Your task to perform on an android device: delete location history Image 0: 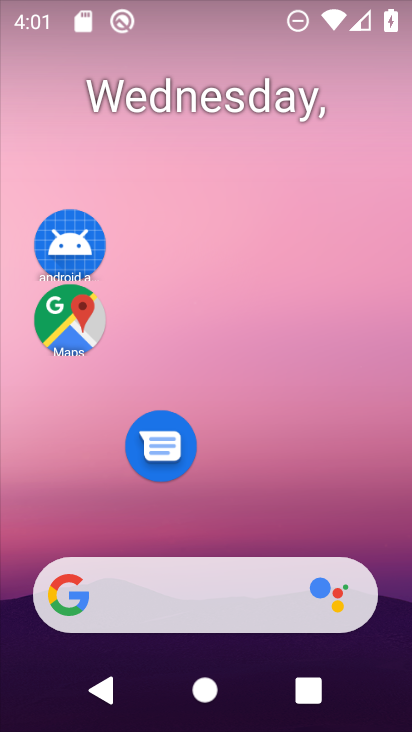
Step 0: drag from (270, 501) to (250, 2)
Your task to perform on an android device: delete location history Image 1: 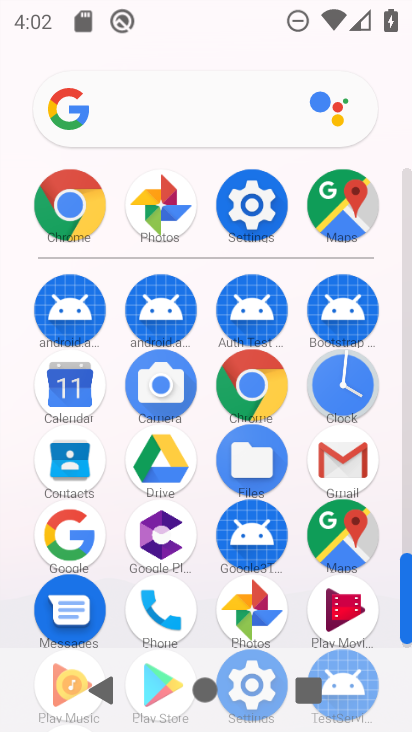
Step 1: click (245, 237)
Your task to perform on an android device: delete location history Image 2: 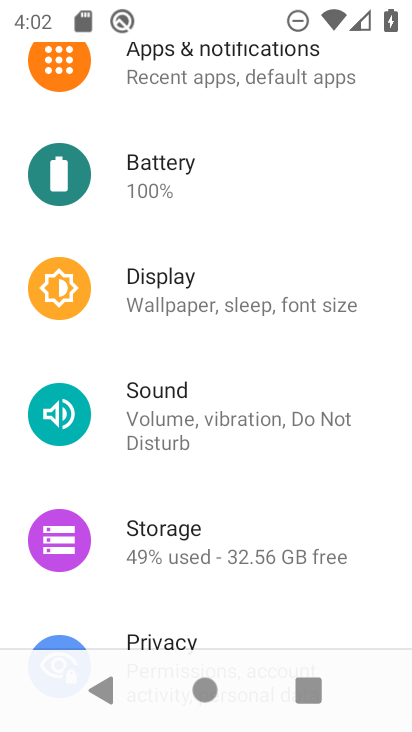
Step 2: press home button
Your task to perform on an android device: delete location history Image 3: 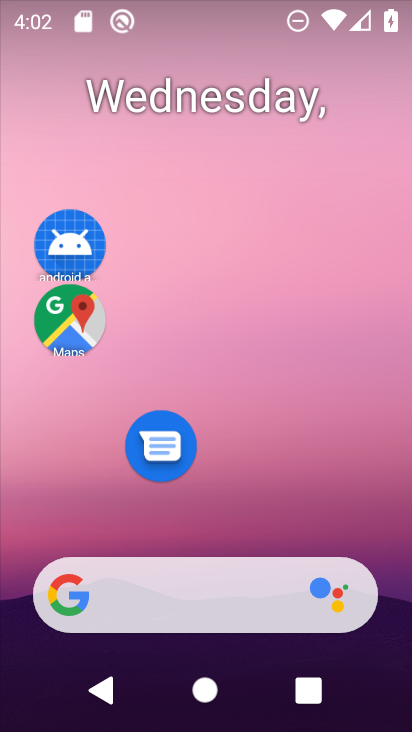
Step 3: drag from (325, 513) to (288, 0)
Your task to perform on an android device: delete location history Image 4: 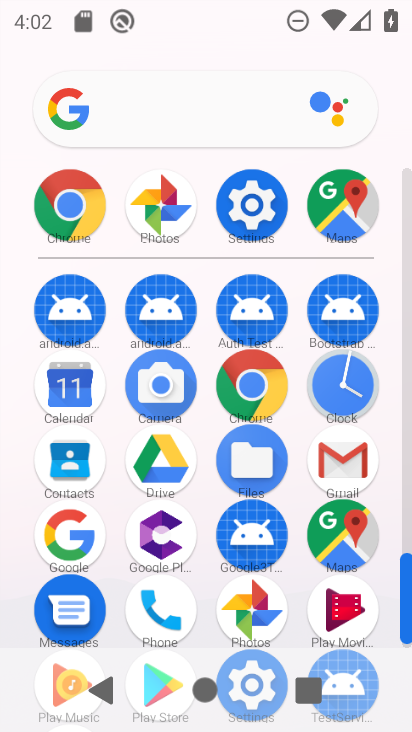
Step 4: click (252, 238)
Your task to perform on an android device: delete location history Image 5: 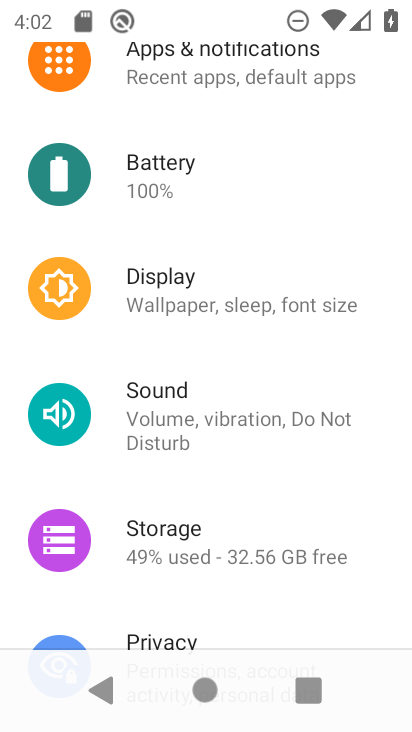
Step 5: drag from (247, 542) to (275, 10)
Your task to perform on an android device: delete location history Image 6: 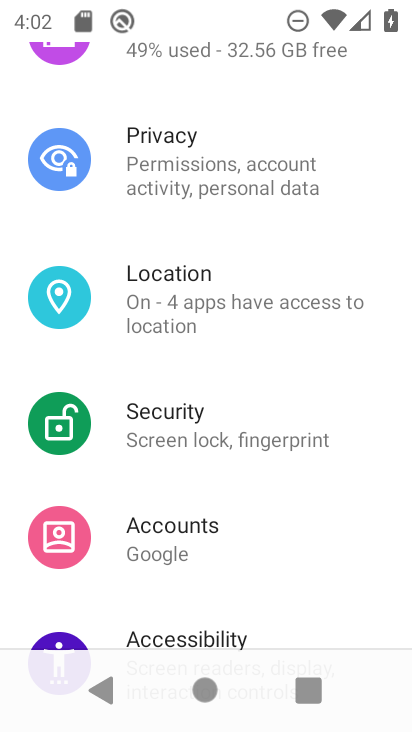
Step 6: drag from (173, 553) to (178, 376)
Your task to perform on an android device: delete location history Image 7: 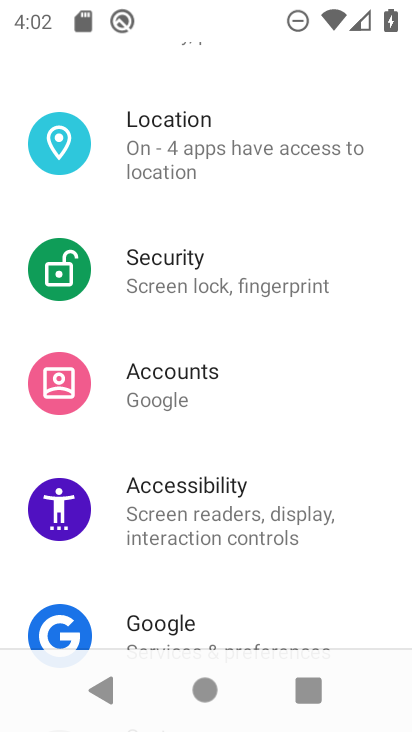
Step 7: click (211, 190)
Your task to perform on an android device: delete location history Image 8: 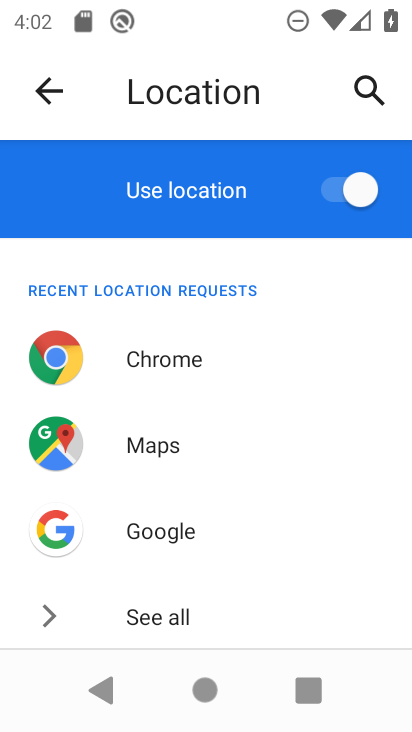
Step 8: drag from (249, 503) to (286, 228)
Your task to perform on an android device: delete location history Image 9: 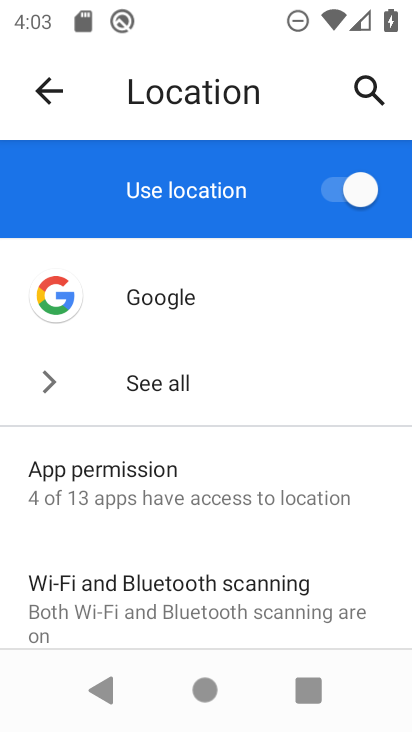
Step 9: drag from (75, 555) to (175, 178)
Your task to perform on an android device: delete location history Image 10: 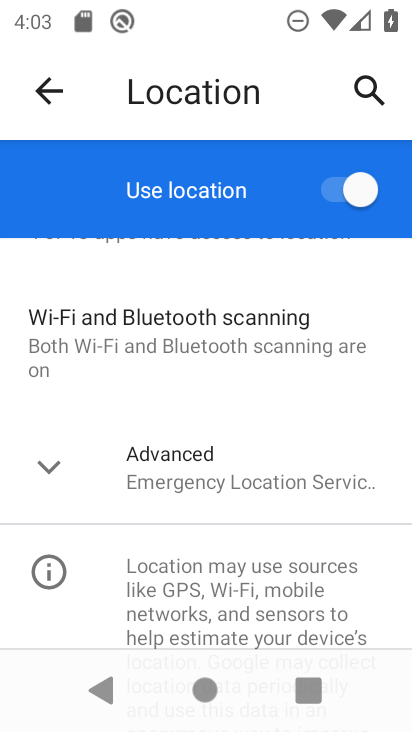
Step 10: click (138, 486)
Your task to perform on an android device: delete location history Image 11: 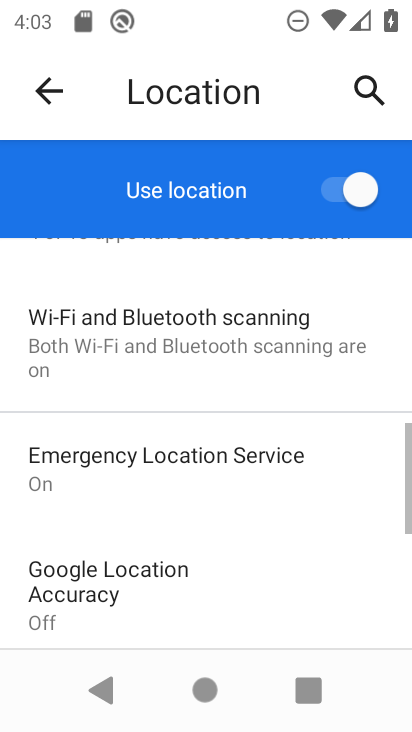
Step 11: drag from (169, 547) to (233, 333)
Your task to perform on an android device: delete location history Image 12: 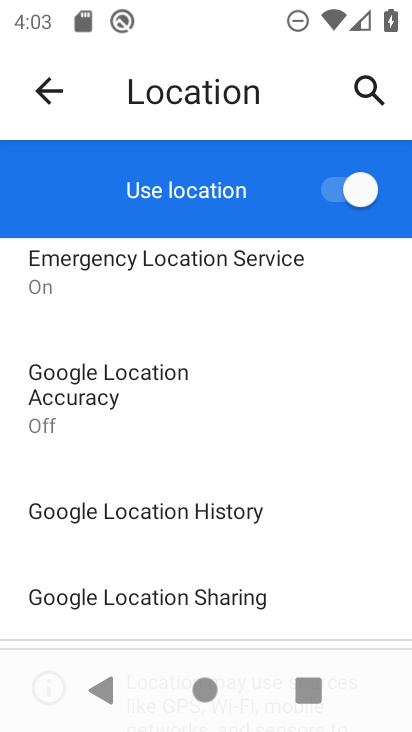
Step 12: click (212, 489)
Your task to perform on an android device: delete location history Image 13: 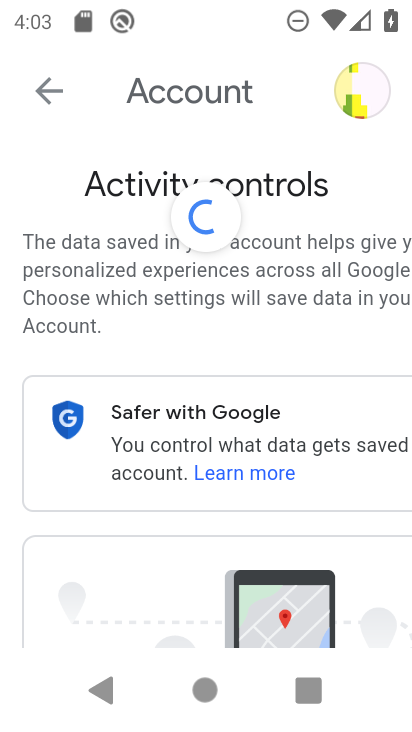
Step 13: task complete